Your task to perform on an android device: move a message to another label in the gmail app Image 0: 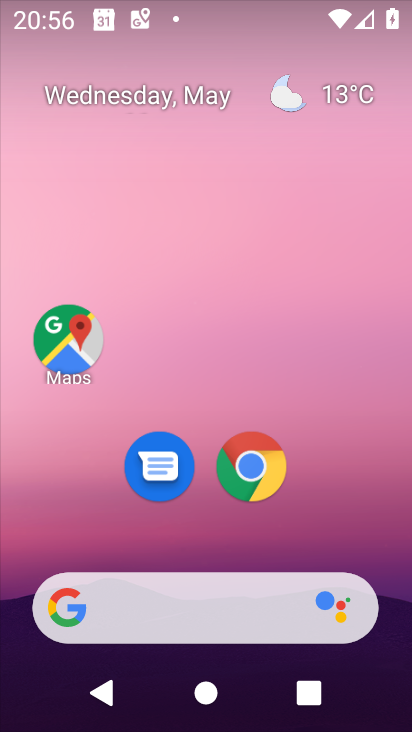
Step 0: drag from (199, 541) to (195, 127)
Your task to perform on an android device: move a message to another label in the gmail app Image 1: 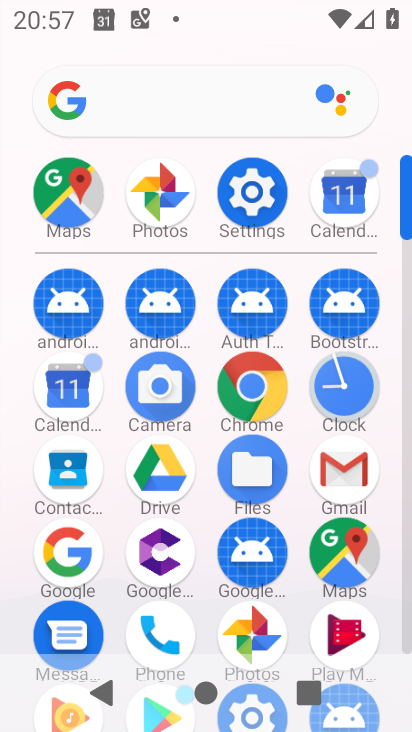
Step 1: click (333, 461)
Your task to perform on an android device: move a message to another label in the gmail app Image 2: 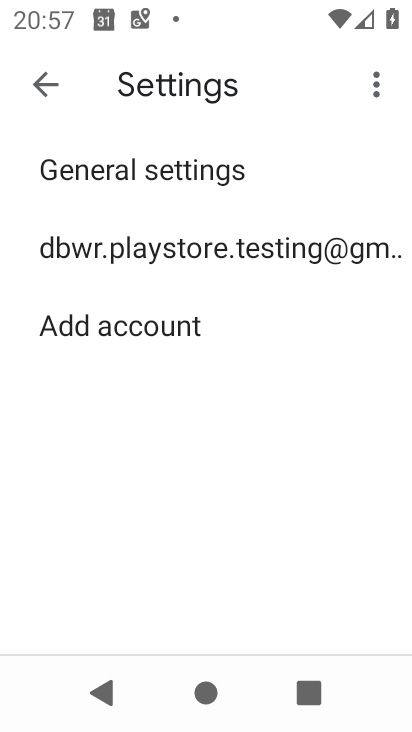
Step 2: click (44, 85)
Your task to perform on an android device: move a message to another label in the gmail app Image 3: 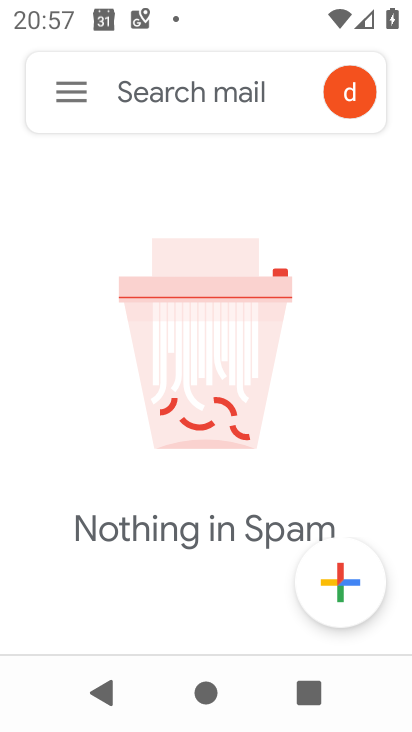
Step 3: click (66, 92)
Your task to perform on an android device: move a message to another label in the gmail app Image 4: 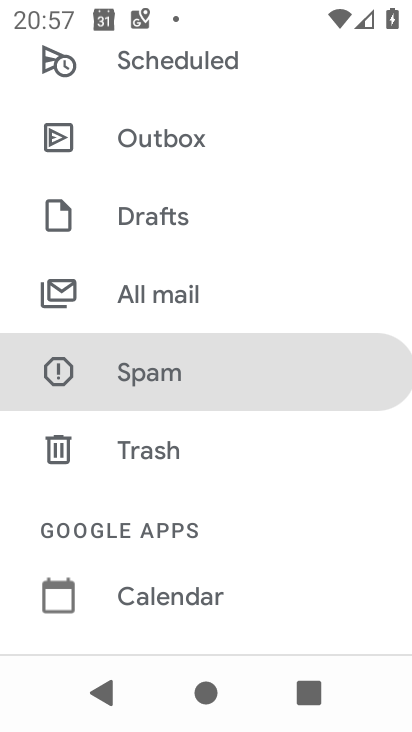
Step 4: click (141, 293)
Your task to perform on an android device: move a message to another label in the gmail app Image 5: 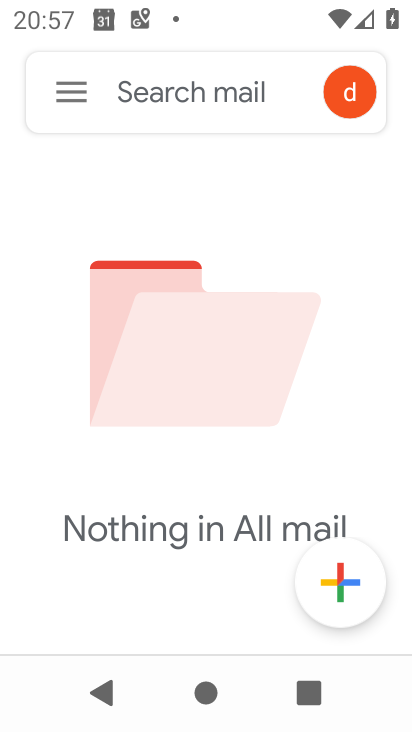
Step 5: task complete